Your task to perform on an android device: Open Google Chrome Image 0: 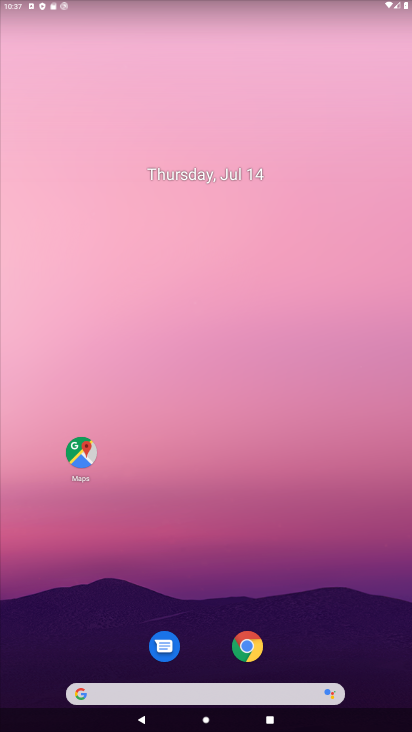
Step 0: click (237, 650)
Your task to perform on an android device: Open Google Chrome Image 1: 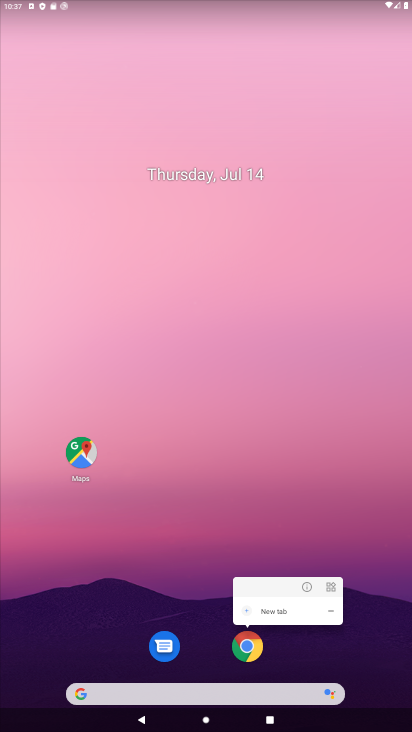
Step 1: click (240, 649)
Your task to perform on an android device: Open Google Chrome Image 2: 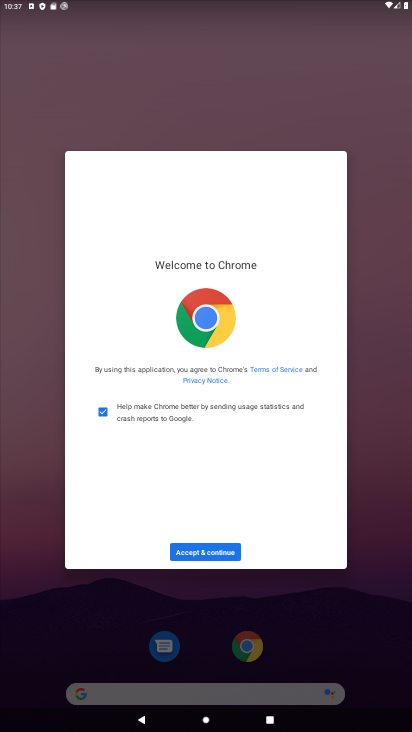
Step 2: click (192, 558)
Your task to perform on an android device: Open Google Chrome Image 3: 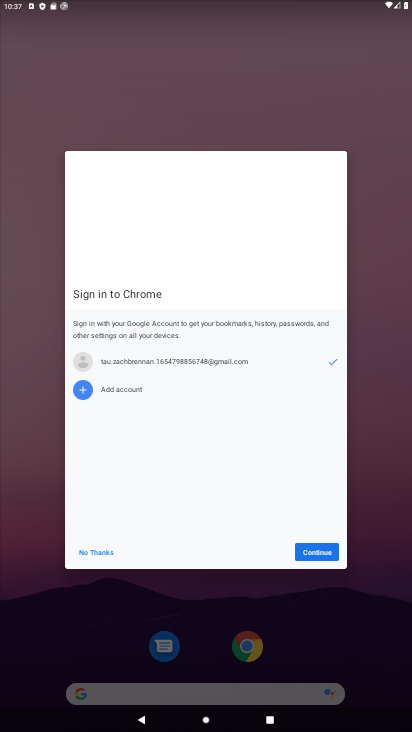
Step 3: click (296, 541)
Your task to perform on an android device: Open Google Chrome Image 4: 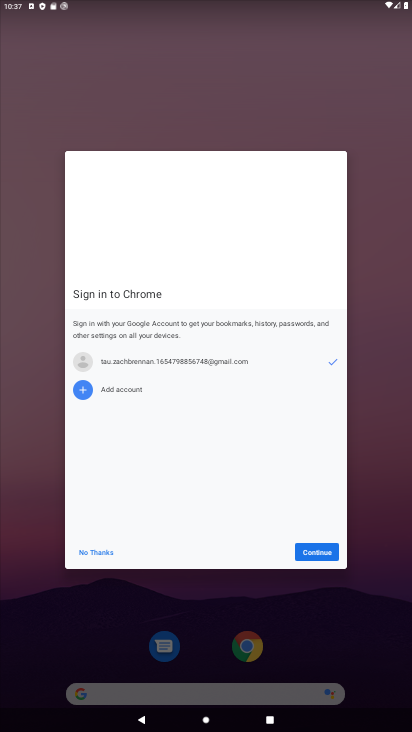
Step 4: click (301, 542)
Your task to perform on an android device: Open Google Chrome Image 5: 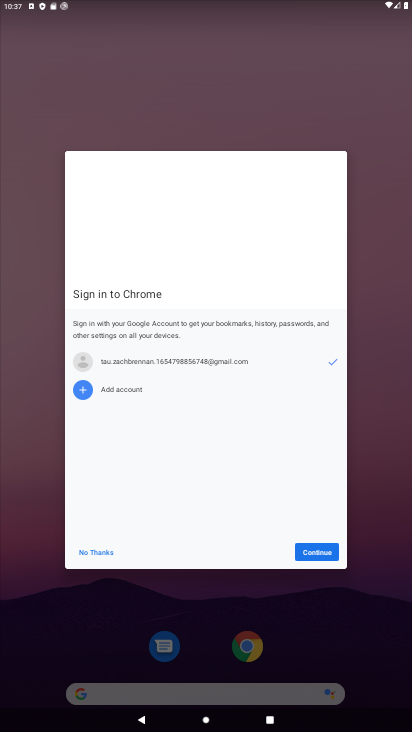
Step 5: click (304, 540)
Your task to perform on an android device: Open Google Chrome Image 6: 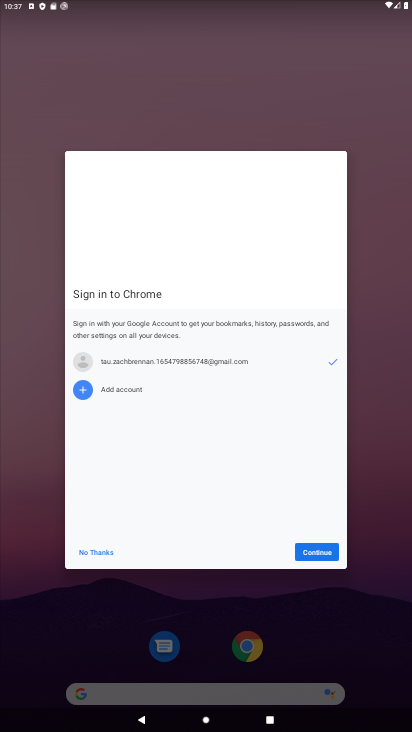
Step 6: click (307, 543)
Your task to perform on an android device: Open Google Chrome Image 7: 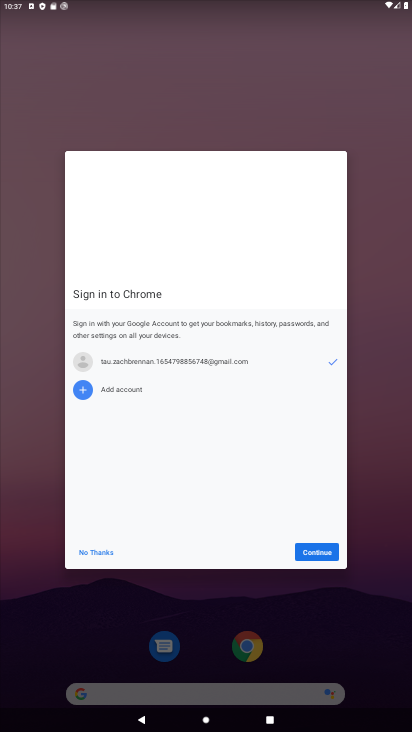
Step 7: click (303, 548)
Your task to perform on an android device: Open Google Chrome Image 8: 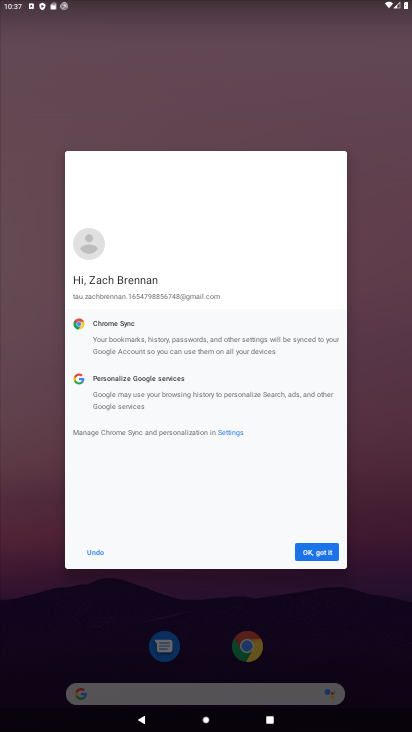
Step 8: click (303, 559)
Your task to perform on an android device: Open Google Chrome Image 9: 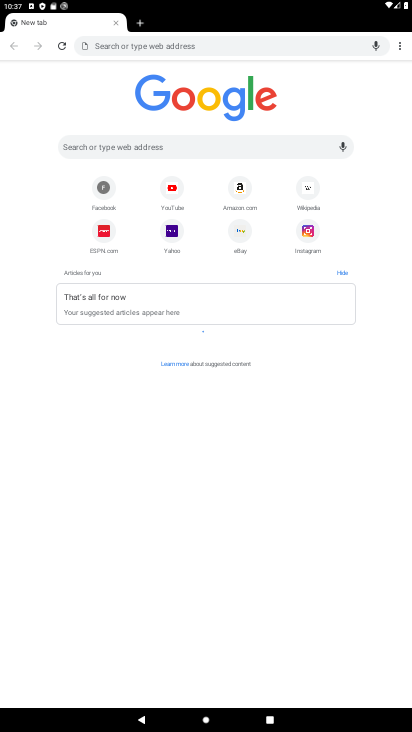
Step 9: task complete